Your task to perform on an android device: What's the weather going to be this weekend? Image 0: 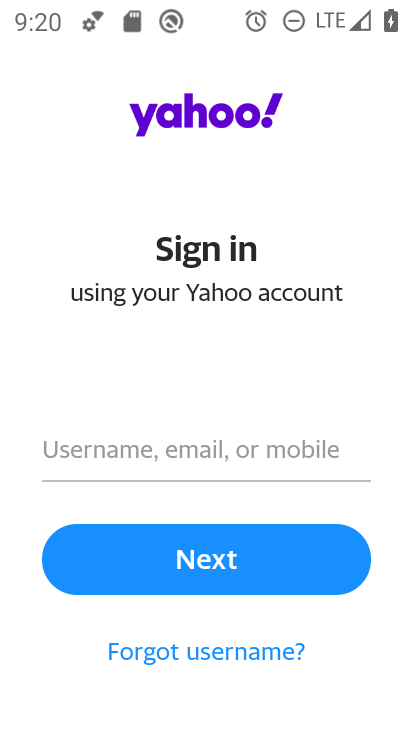
Step 0: press home button
Your task to perform on an android device: What's the weather going to be this weekend? Image 1: 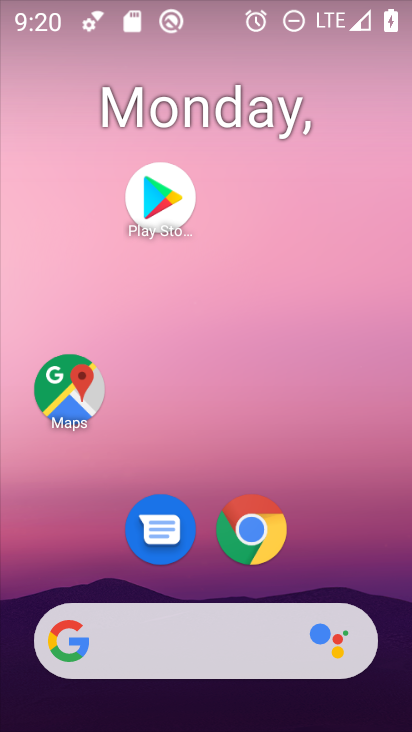
Step 1: drag from (341, 501) to (230, 120)
Your task to perform on an android device: What's the weather going to be this weekend? Image 2: 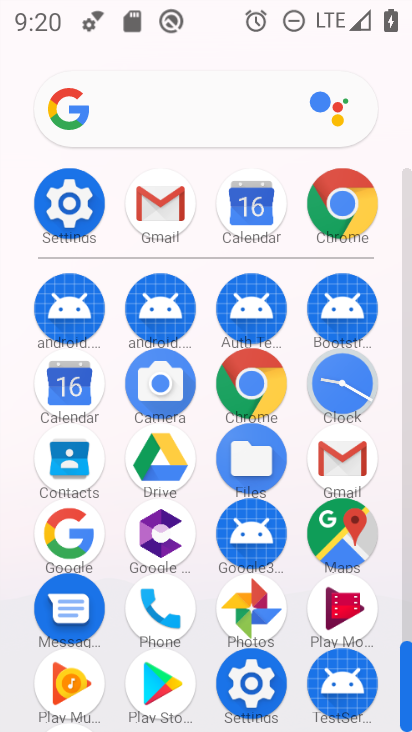
Step 2: click (80, 103)
Your task to perform on an android device: What's the weather going to be this weekend? Image 3: 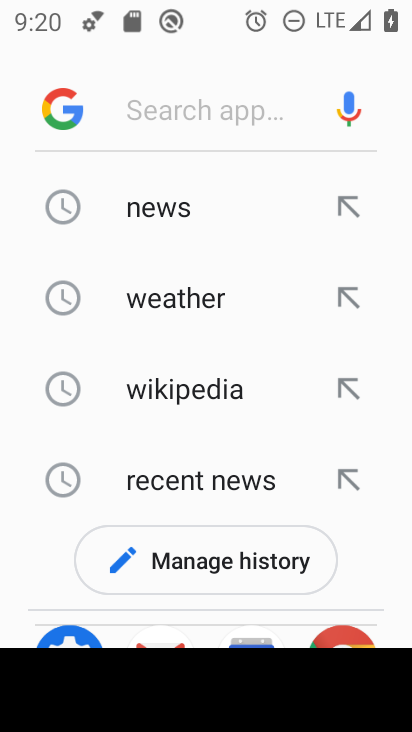
Step 3: click (199, 296)
Your task to perform on an android device: What's the weather going to be this weekend? Image 4: 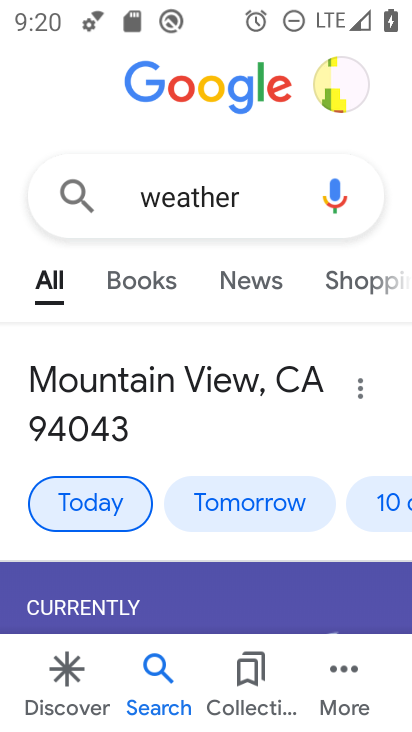
Step 4: click (381, 510)
Your task to perform on an android device: What's the weather going to be this weekend? Image 5: 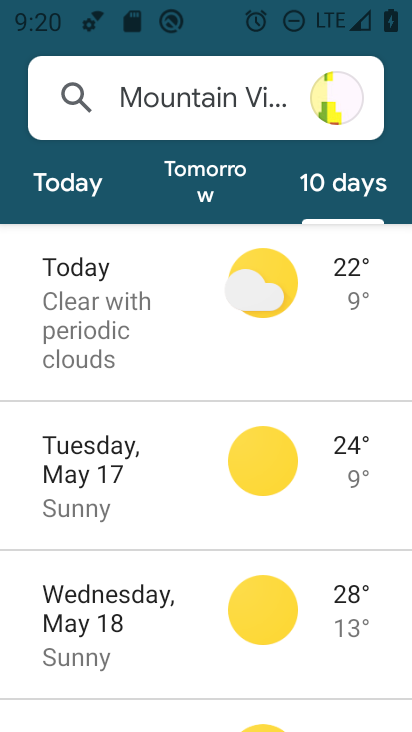
Step 5: task complete